Your task to perform on an android device: turn on wifi Image 0: 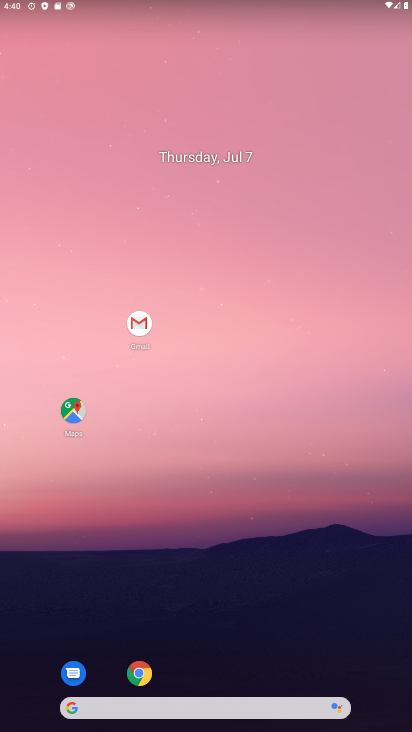
Step 0: drag from (260, 606) to (221, 139)
Your task to perform on an android device: turn on wifi Image 1: 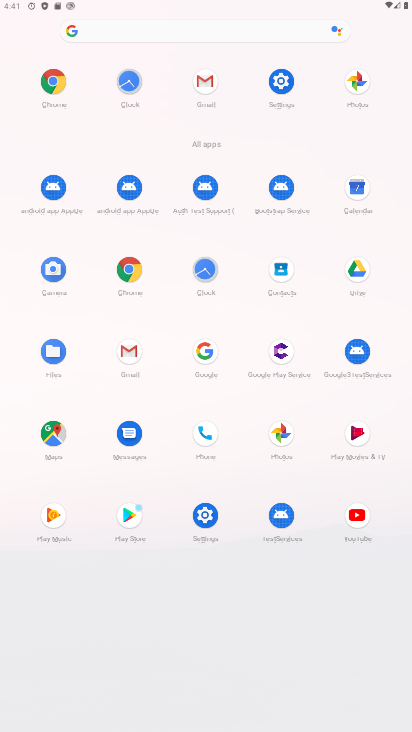
Step 1: click (273, 86)
Your task to perform on an android device: turn on wifi Image 2: 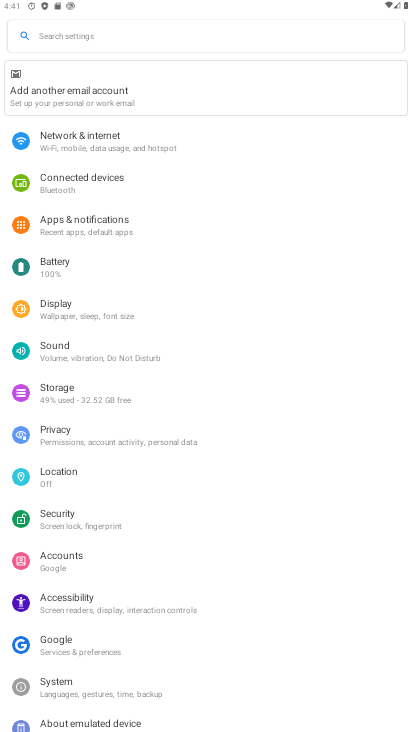
Step 2: click (134, 140)
Your task to perform on an android device: turn on wifi Image 3: 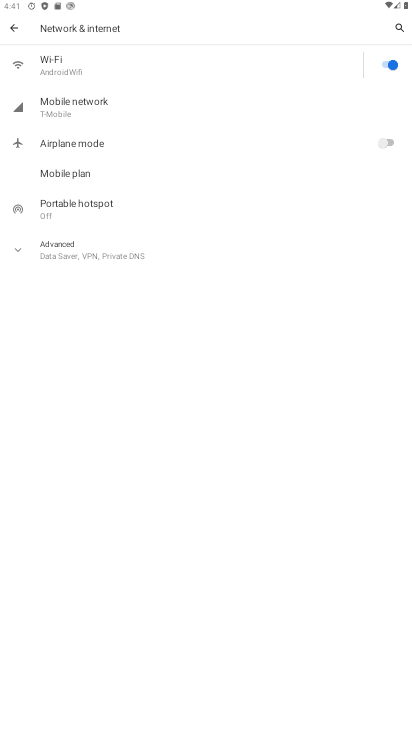
Step 3: click (143, 61)
Your task to perform on an android device: turn on wifi Image 4: 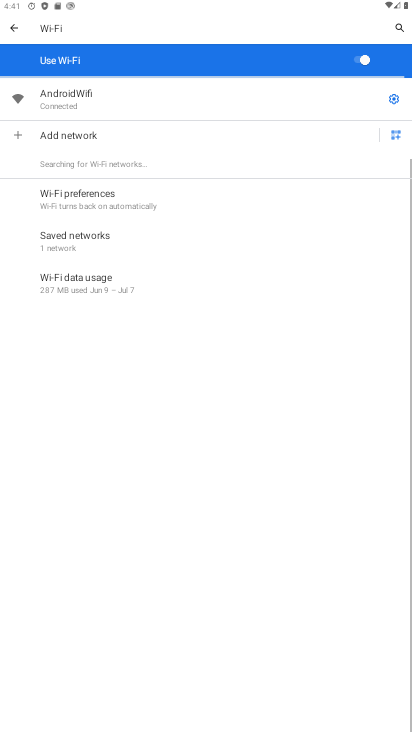
Step 4: click (390, 101)
Your task to perform on an android device: turn on wifi Image 5: 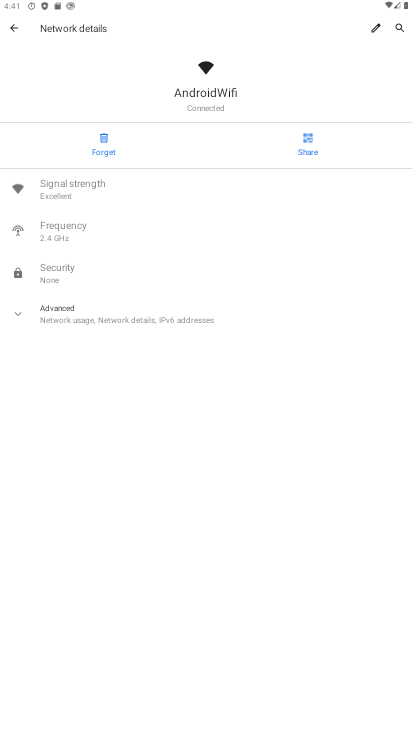
Step 5: task complete